Your task to perform on an android device: toggle pop-ups in chrome Image 0: 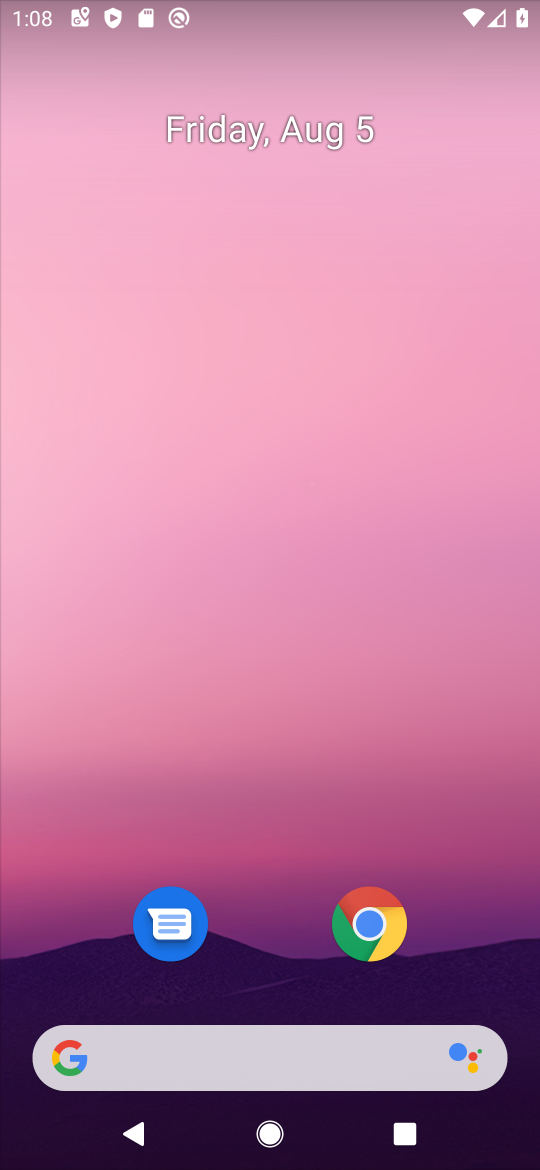
Step 0: click (368, 922)
Your task to perform on an android device: toggle pop-ups in chrome Image 1: 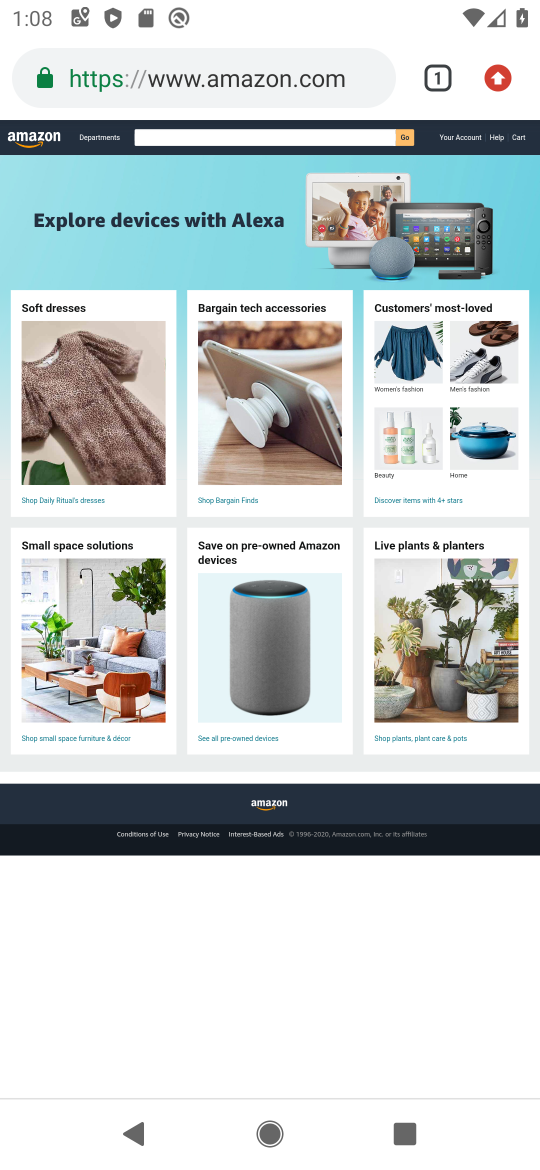
Step 1: click (501, 77)
Your task to perform on an android device: toggle pop-ups in chrome Image 2: 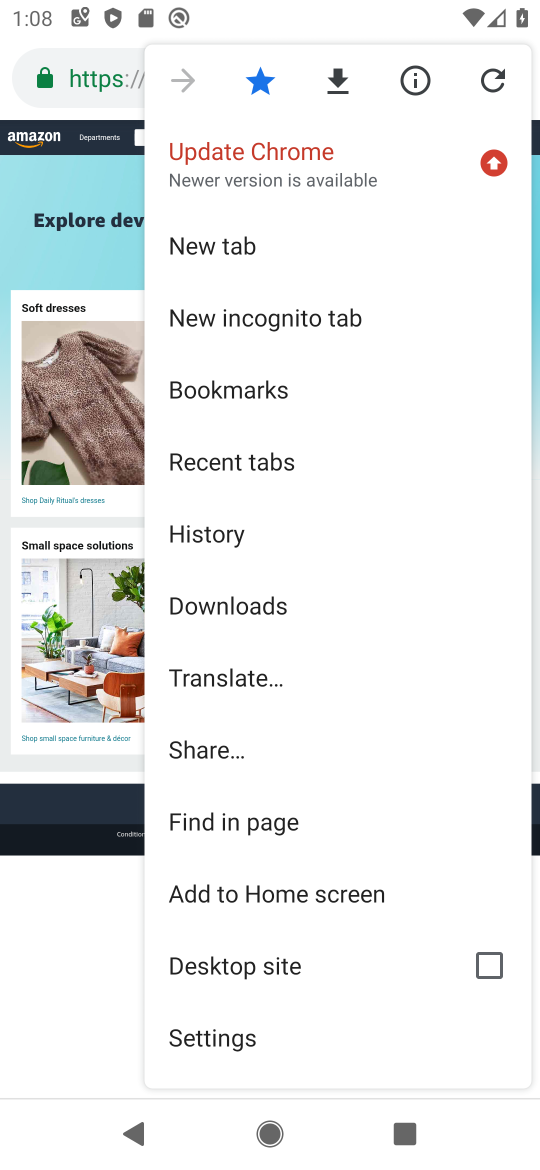
Step 2: click (233, 1033)
Your task to perform on an android device: toggle pop-ups in chrome Image 3: 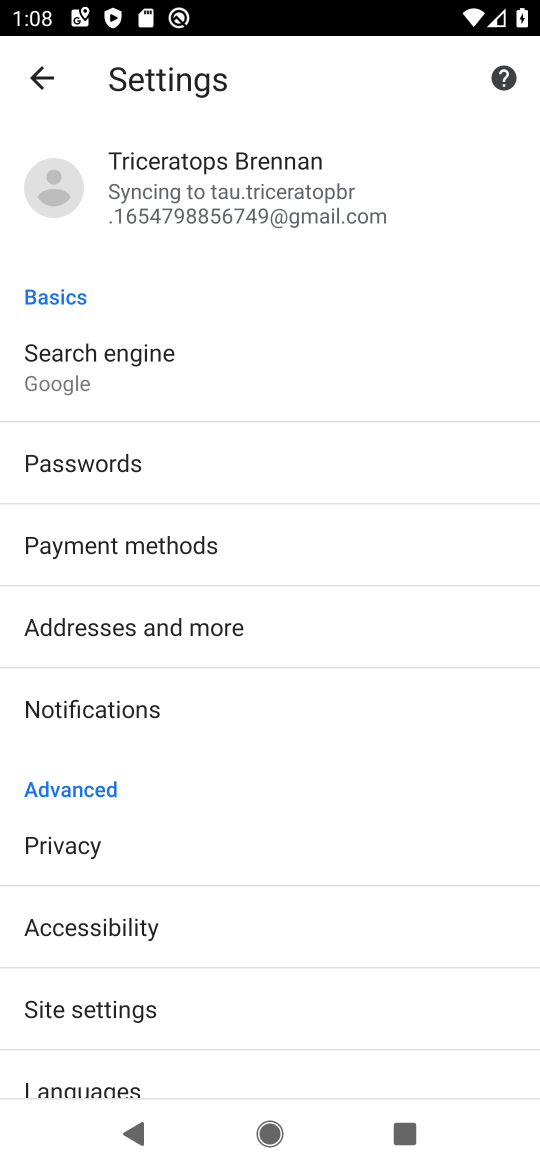
Step 3: drag from (213, 958) to (272, 793)
Your task to perform on an android device: toggle pop-ups in chrome Image 4: 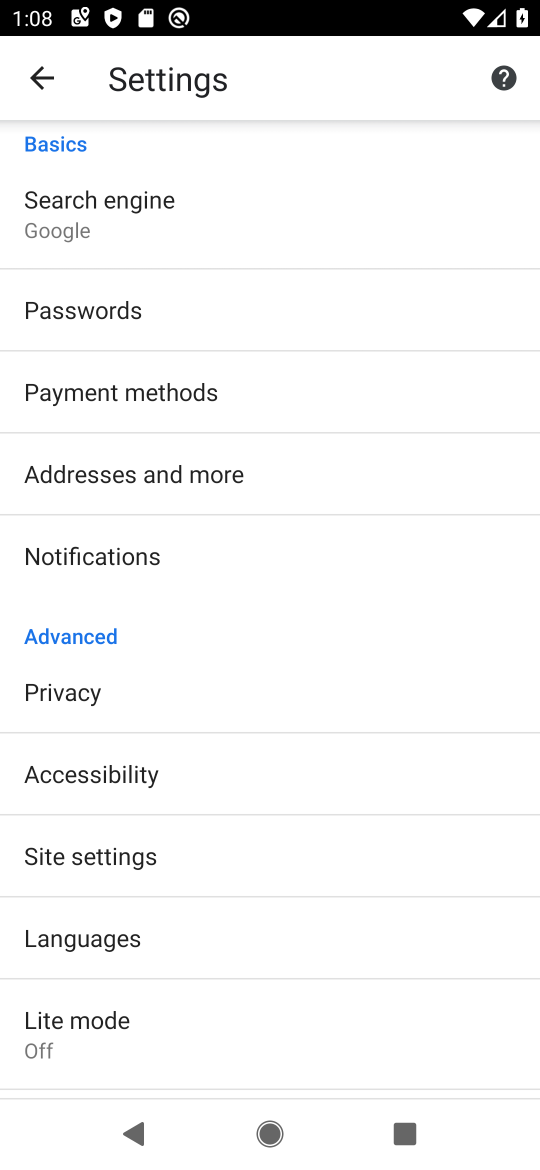
Step 4: click (104, 844)
Your task to perform on an android device: toggle pop-ups in chrome Image 5: 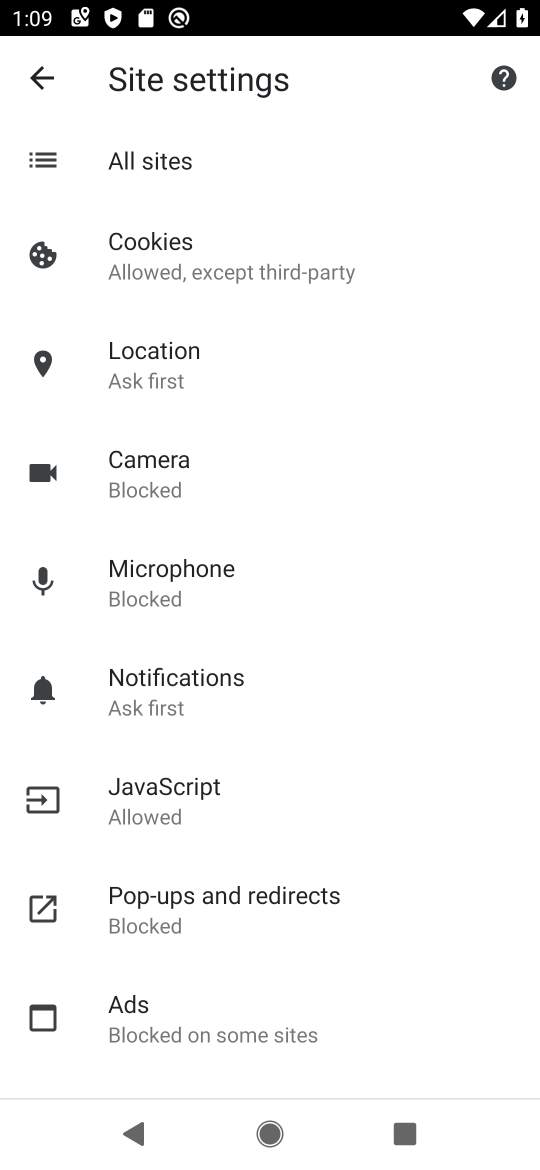
Step 5: click (188, 910)
Your task to perform on an android device: toggle pop-ups in chrome Image 6: 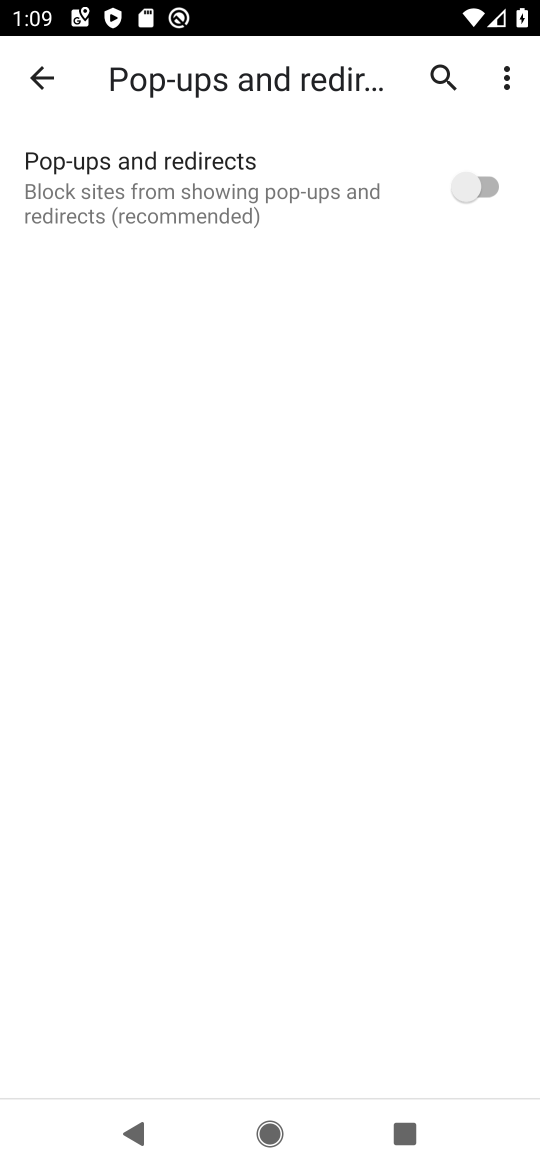
Step 6: click (477, 188)
Your task to perform on an android device: toggle pop-ups in chrome Image 7: 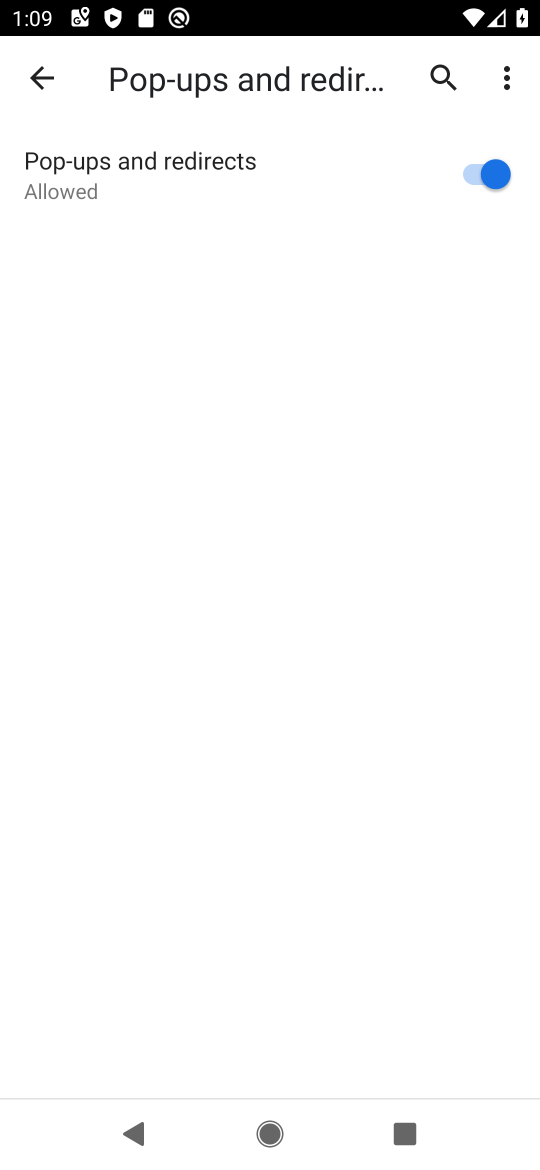
Step 7: task complete